Your task to perform on an android device: set an alarm Image 0: 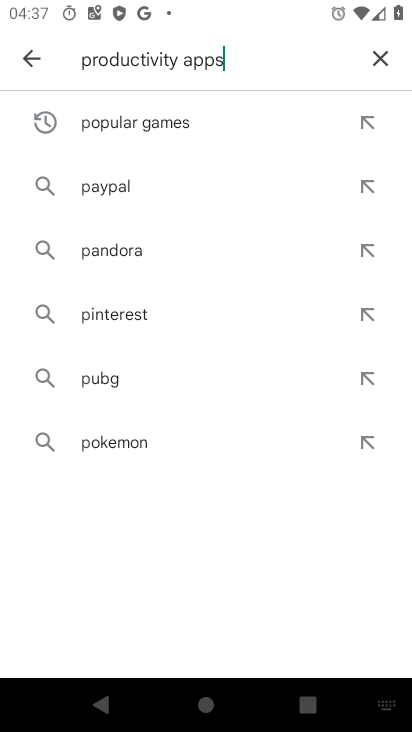
Step 0: press home button
Your task to perform on an android device: set an alarm Image 1: 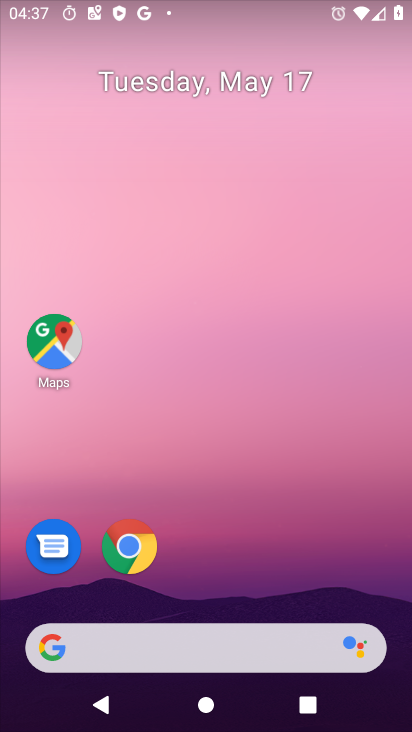
Step 1: drag from (389, 600) to (380, 419)
Your task to perform on an android device: set an alarm Image 2: 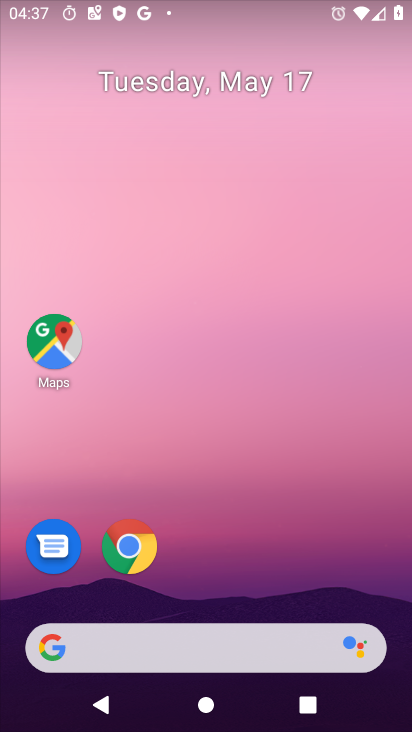
Step 2: drag from (391, 588) to (367, 196)
Your task to perform on an android device: set an alarm Image 3: 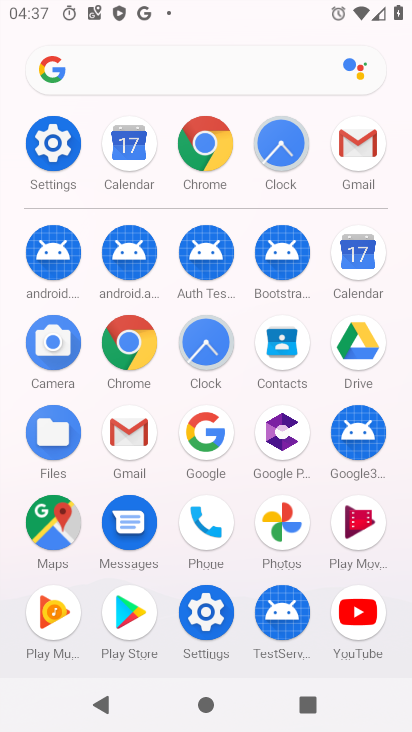
Step 3: click (208, 343)
Your task to perform on an android device: set an alarm Image 4: 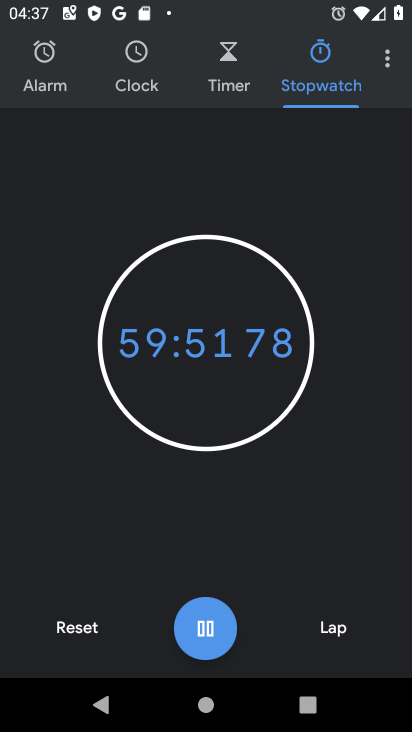
Step 4: click (53, 76)
Your task to perform on an android device: set an alarm Image 5: 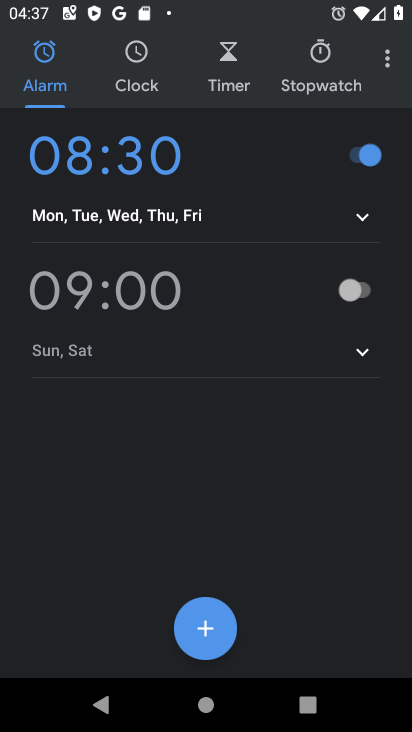
Step 5: click (363, 285)
Your task to perform on an android device: set an alarm Image 6: 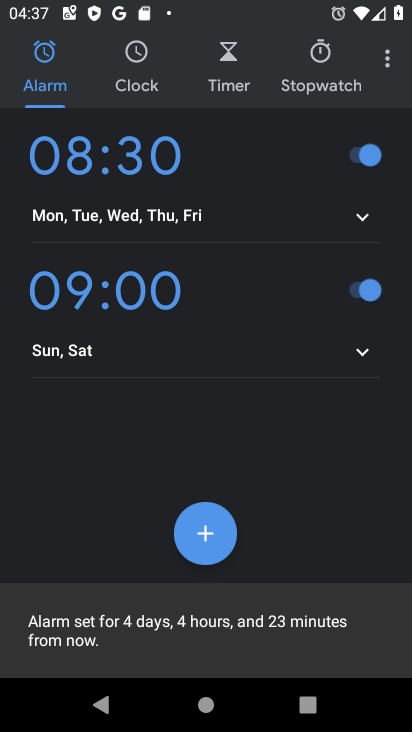
Step 6: task complete